Your task to perform on an android device: Open Google Image 0: 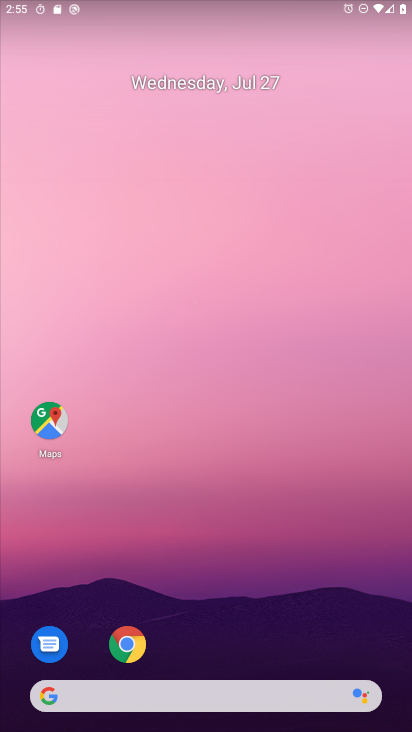
Step 0: drag from (164, 616) to (217, 22)
Your task to perform on an android device: Open Google Image 1: 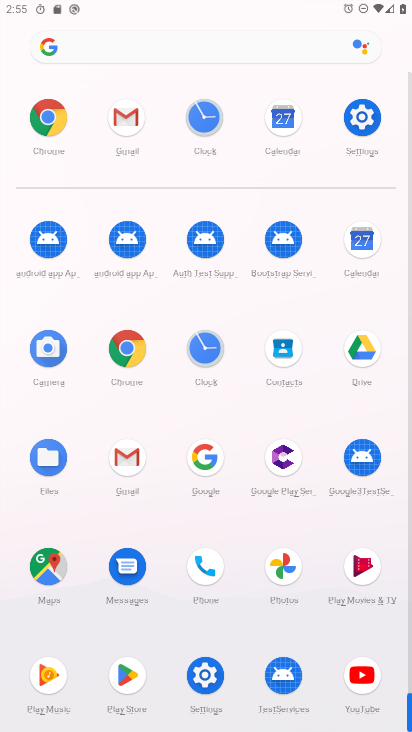
Step 1: click (213, 451)
Your task to perform on an android device: Open Google Image 2: 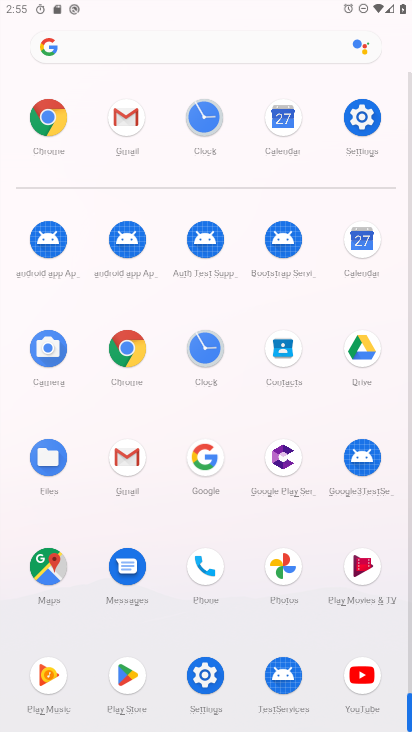
Step 2: click (212, 449)
Your task to perform on an android device: Open Google Image 3: 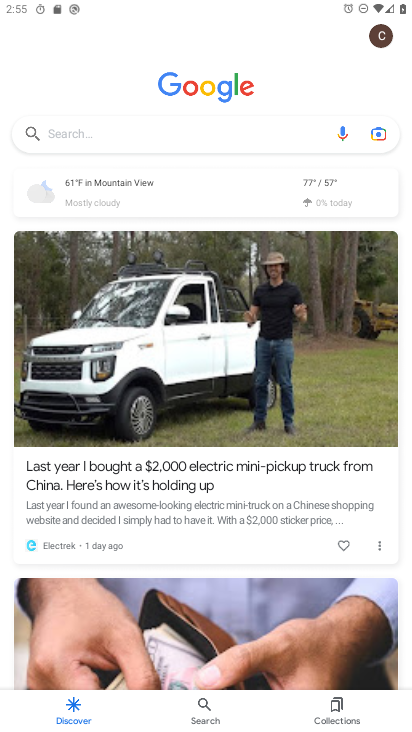
Step 3: task complete